Your task to perform on an android device: toggle pop-ups in chrome Image 0: 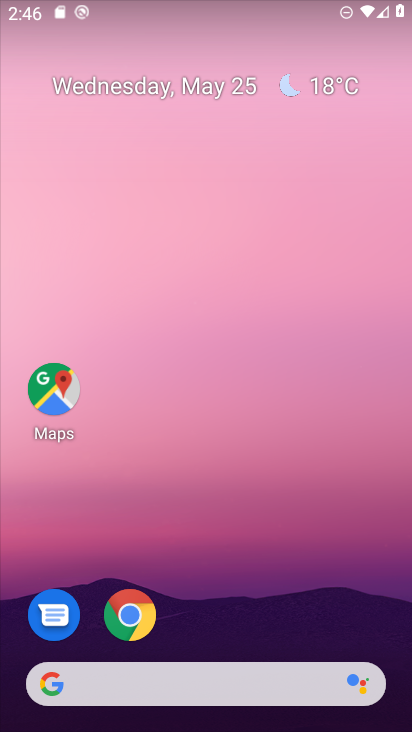
Step 0: click (144, 607)
Your task to perform on an android device: toggle pop-ups in chrome Image 1: 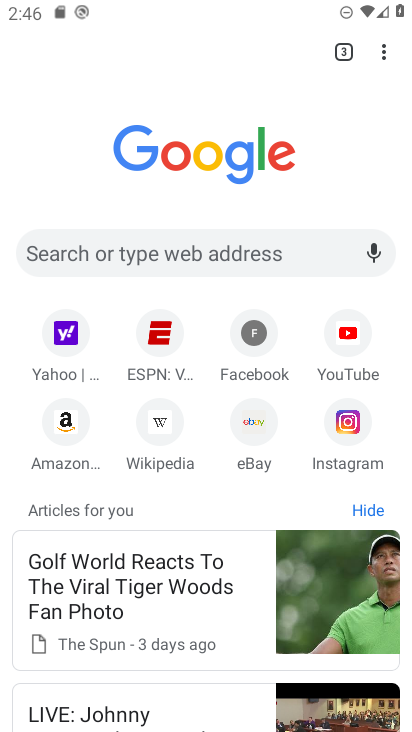
Step 1: click (377, 54)
Your task to perform on an android device: toggle pop-ups in chrome Image 2: 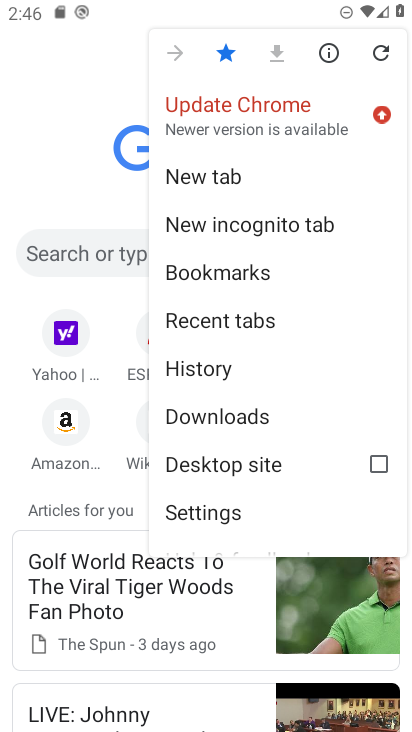
Step 2: click (214, 505)
Your task to perform on an android device: toggle pop-ups in chrome Image 3: 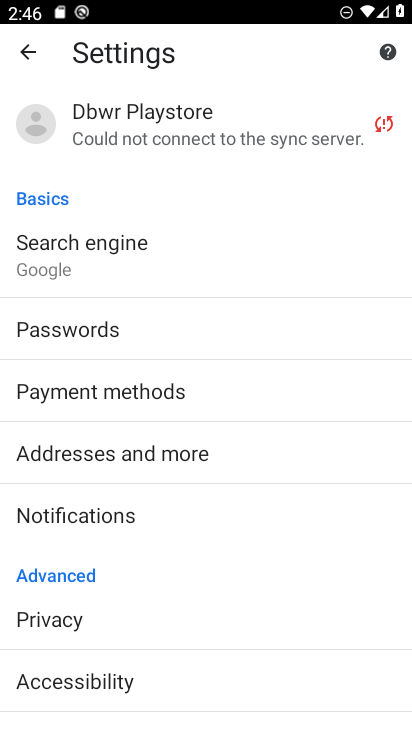
Step 3: drag from (221, 594) to (283, 274)
Your task to perform on an android device: toggle pop-ups in chrome Image 4: 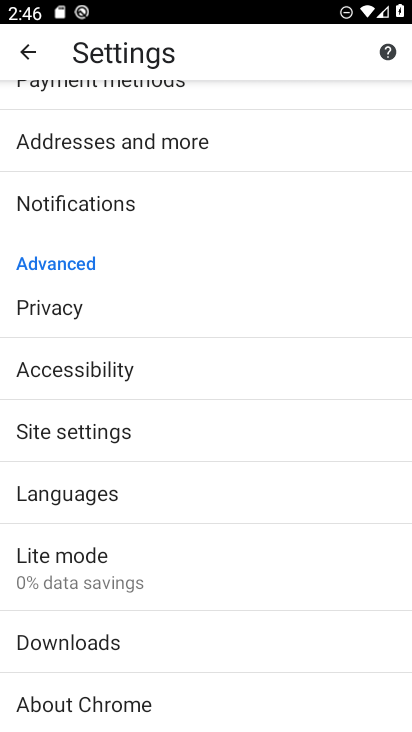
Step 4: click (218, 429)
Your task to perform on an android device: toggle pop-ups in chrome Image 5: 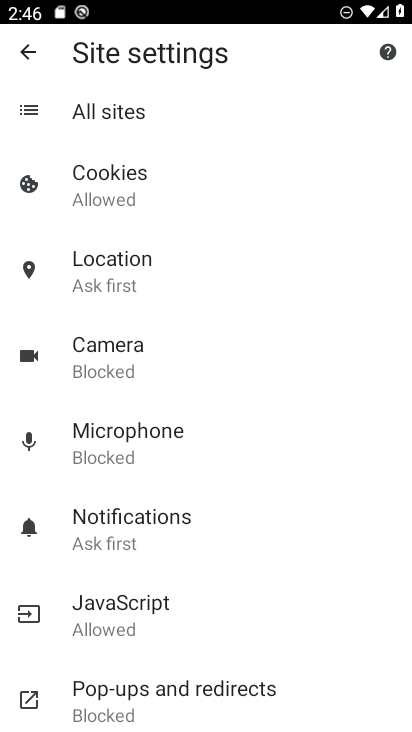
Step 5: click (168, 684)
Your task to perform on an android device: toggle pop-ups in chrome Image 6: 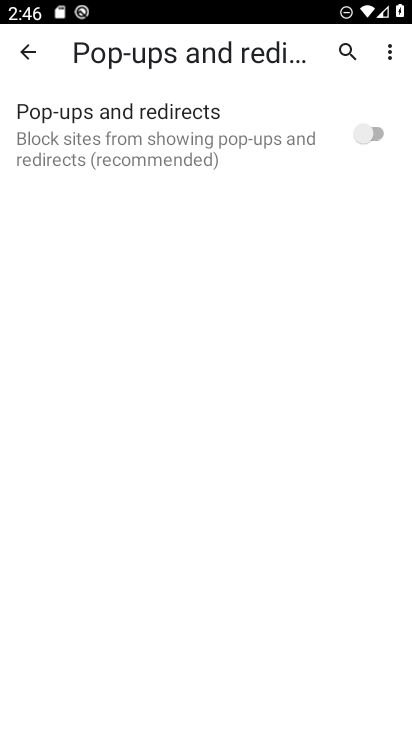
Step 6: click (374, 129)
Your task to perform on an android device: toggle pop-ups in chrome Image 7: 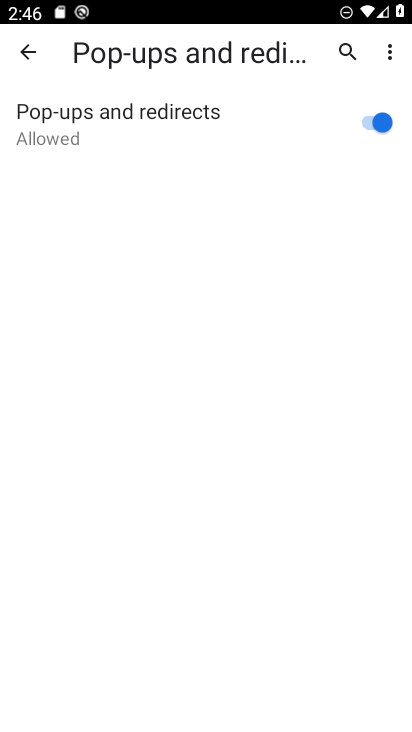
Step 7: task complete